Your task to perform on an android device: Open Youtube and go to the subscriptions tab Image 0: 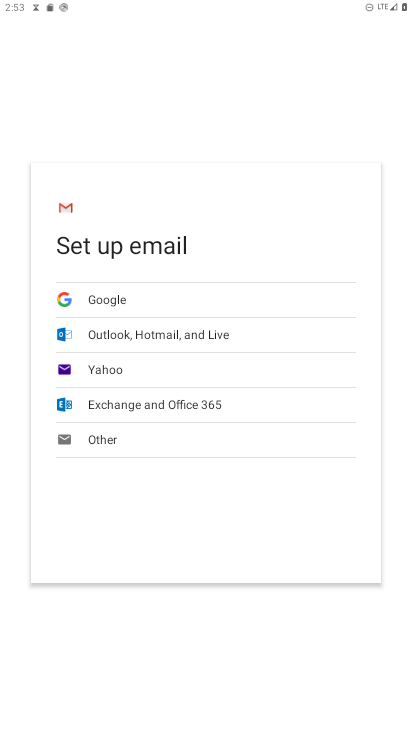
Step 0: press home button
Your task to perform on an android device: Open Youtube and go to the subscriptions tab Image 1: 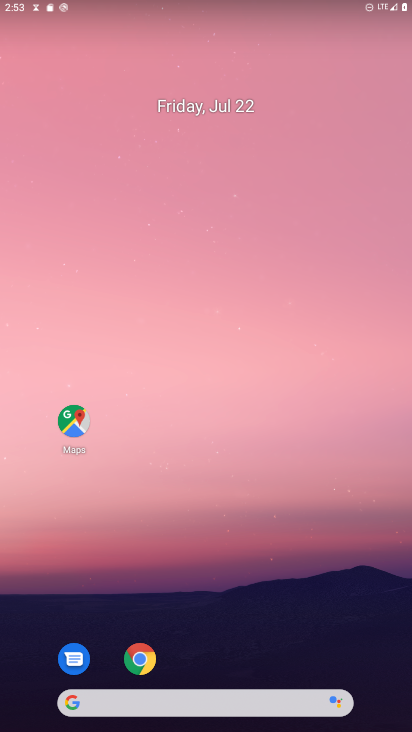
Step 1: drag from (240, 618) to (344, 28)
Your task to perform on an android device: Open Youtube and go to the subscriptions tab Image 2: 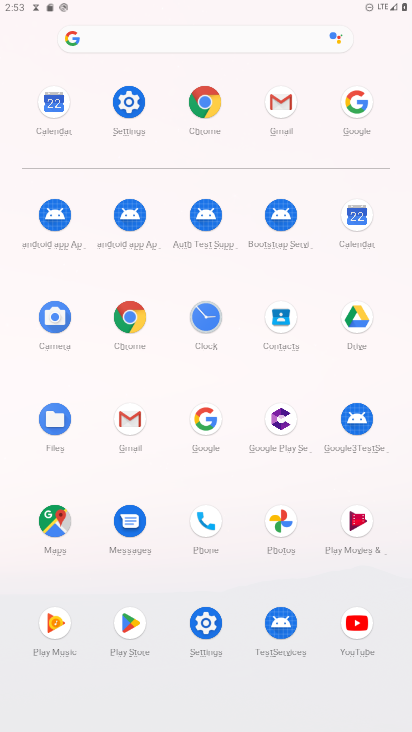
Step 2: click (358, 622)
Your task to perform on an android device: Open Youtube and go to the subscriptions tab Image 3: 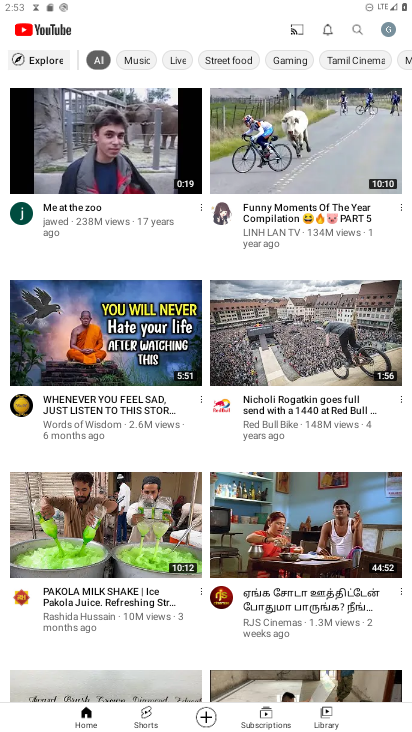
Step 3: click (267, 723)
Your task to perform on an android device: Open Youtube and go to the subscriptions tab Image 4: 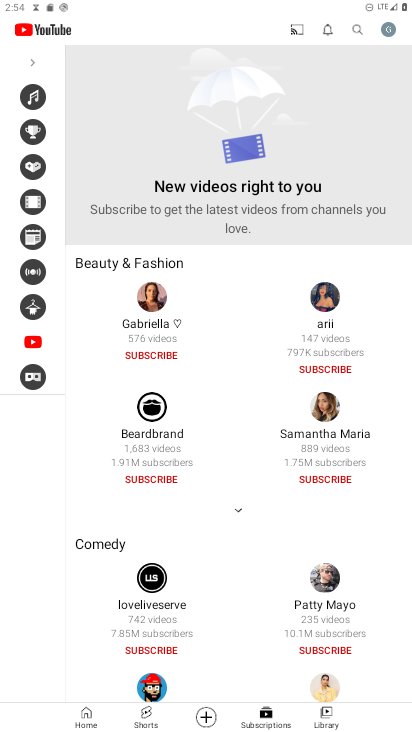
Step 4: task complete